Your task to perform on an android device: turn off smart reply in the gmail app Image 0: 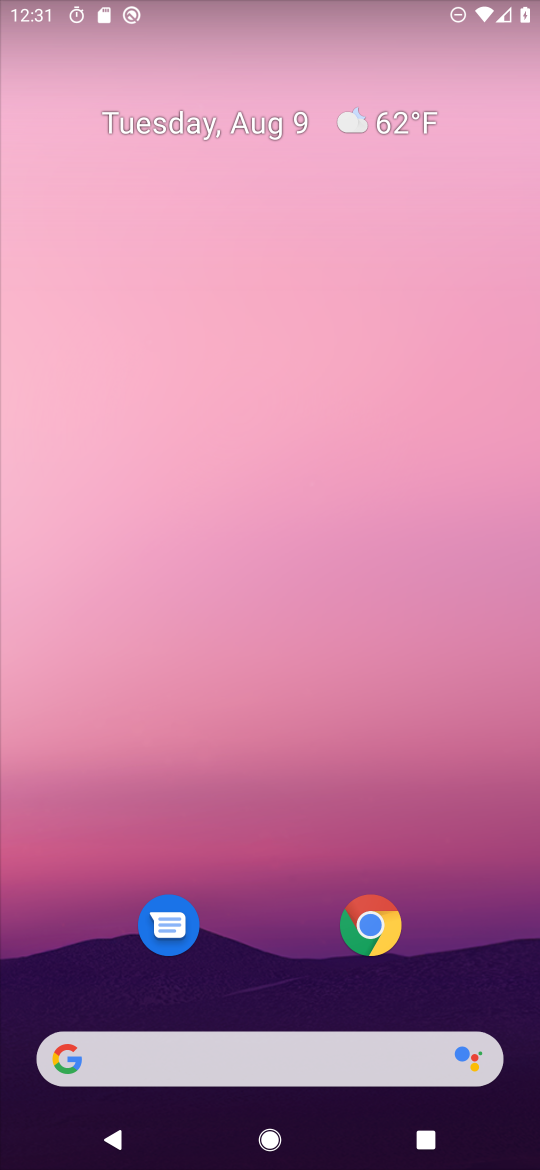
Step 0: drag from (237, 970) to (264, 287)
Your task to perform on an android device: turn off smart reply in the gmail app Image 1: 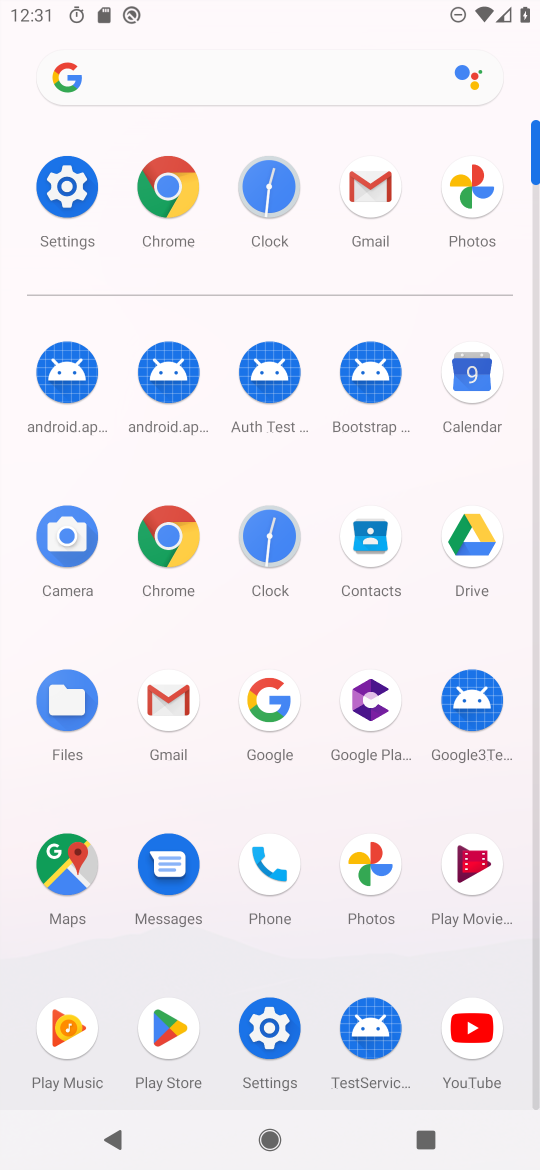
Step 1: click (169, 690)
Your task to perform on an android device: turn off smart reply in the gmail app Image 2: 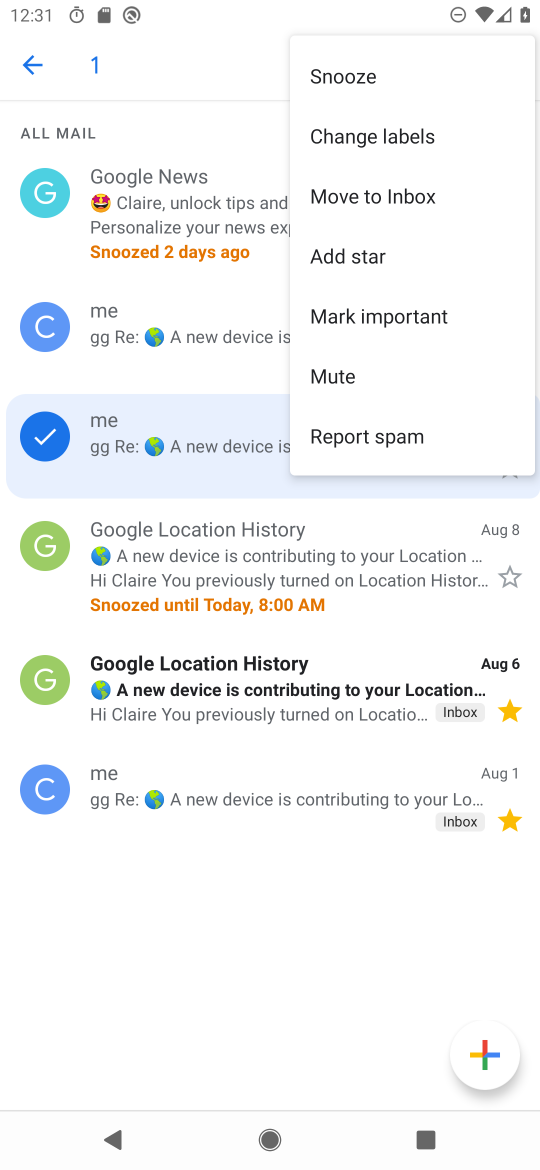
Step 2: click (193, 921)
Your task to perform on an android device: turn off smart reply in the gmail app Image 3: 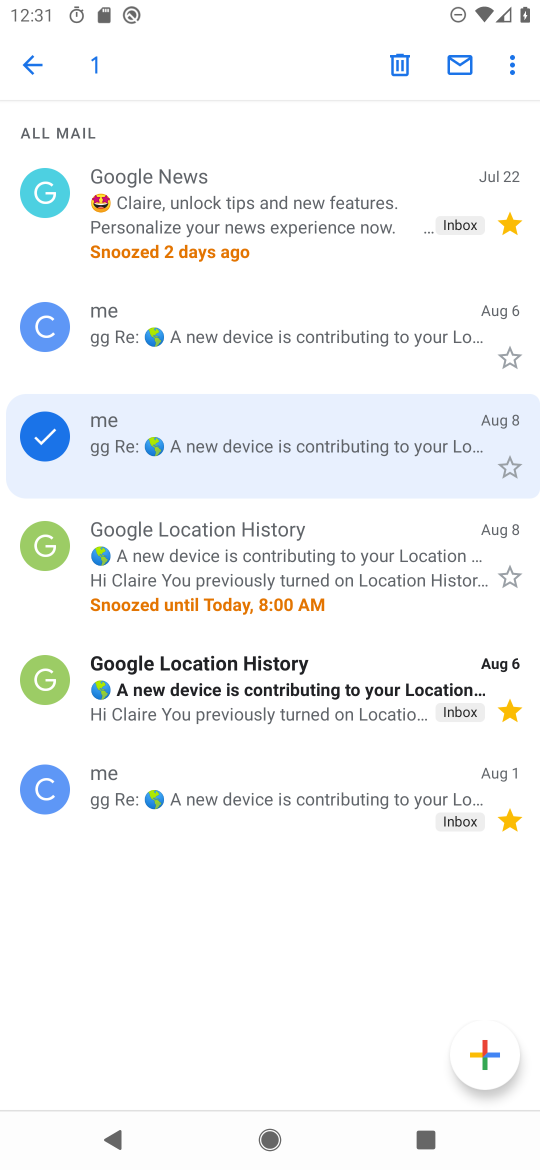
Step 3: click (26, 67)
Your task to perform on an android device: turn off smart reply in the gmail app Image 4: 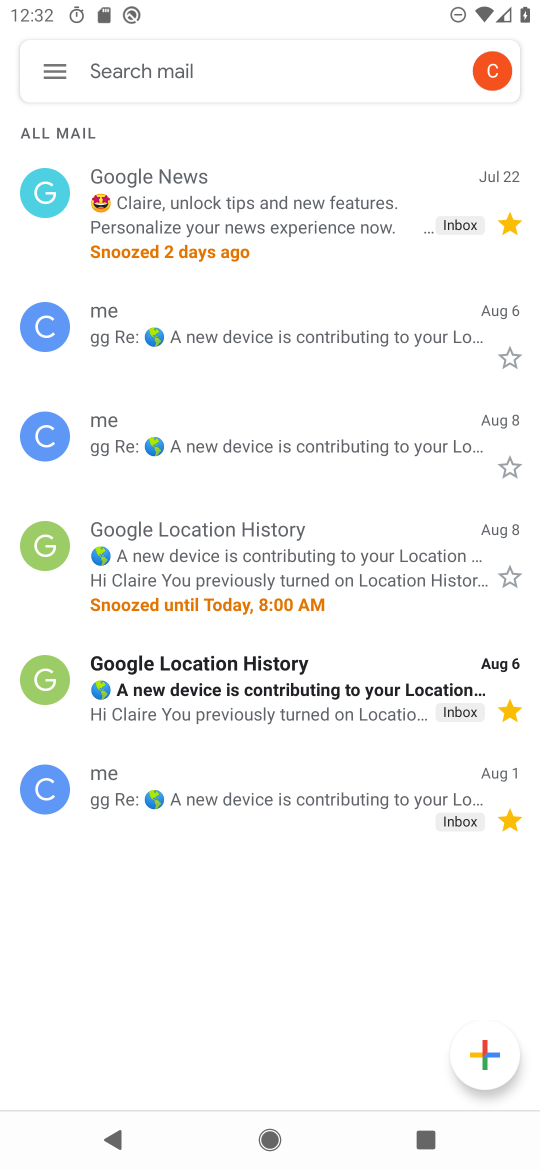
Step 4: click (49, 78)
Your task to perform on an android device: turn off smart reply in the gmail app Image 5: 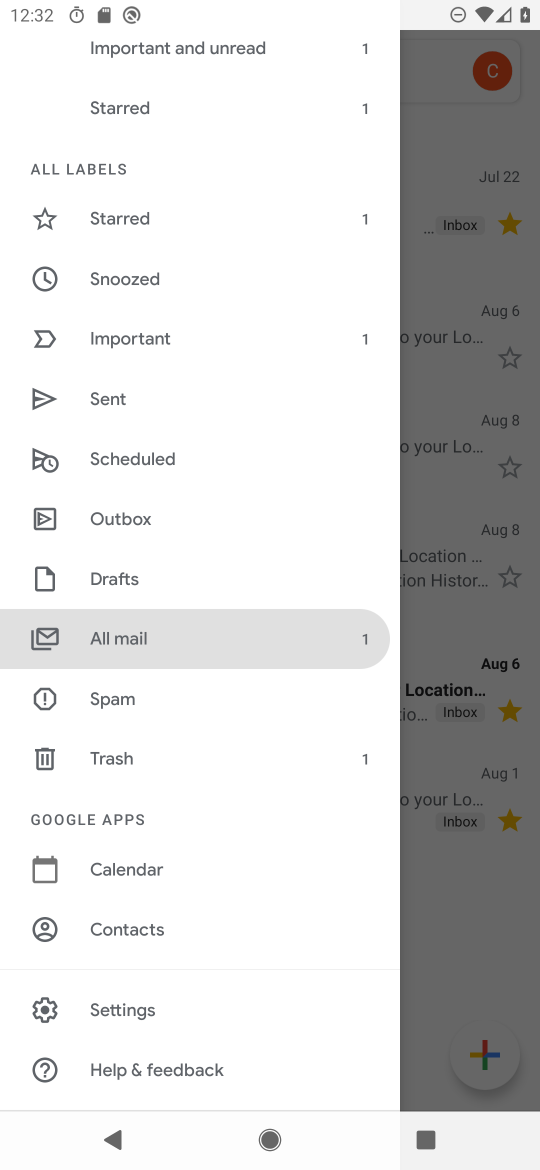
Step 5: click (140, 995)
Your task to perform on an android device: turn off smart reply in the gmail app Image 6: 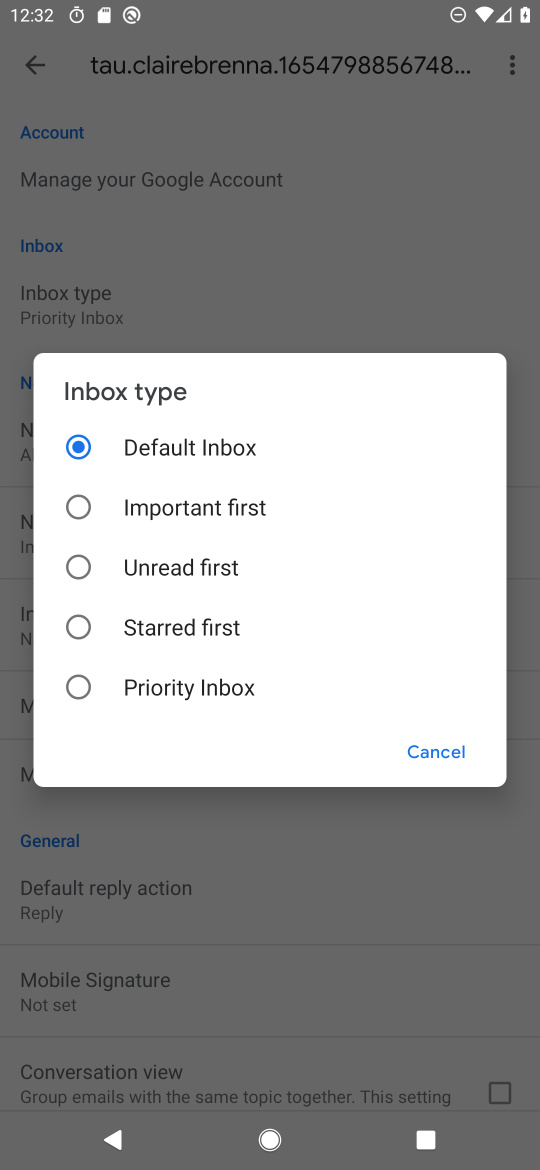
Step 6: click (416, 750)
Your task to perform on an android device: turn off smart reply in the gmail app Image 7: 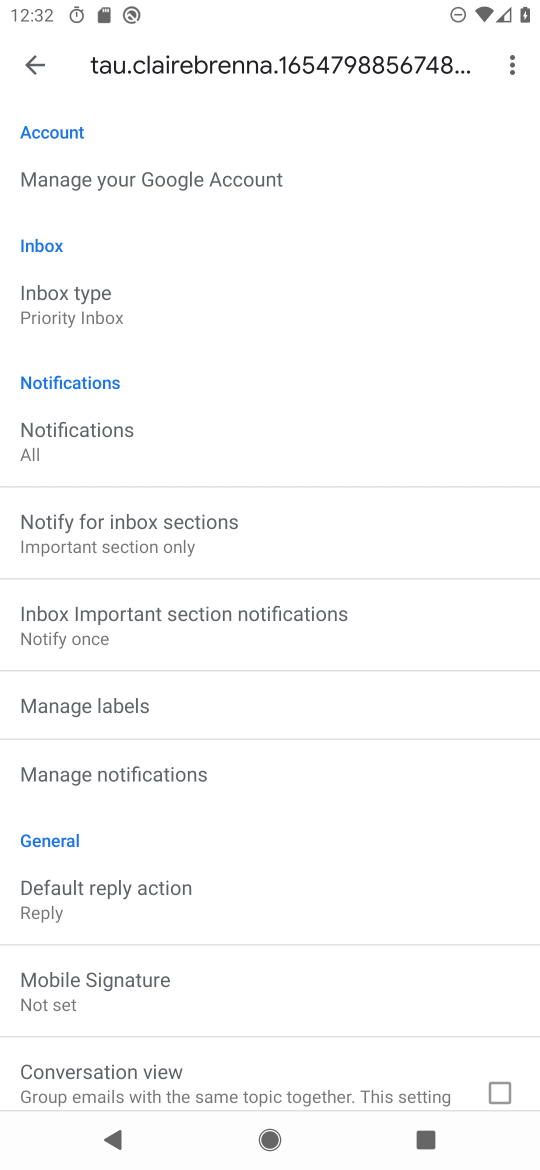
Step 7: drag from (303, 963) to (341, 454)
Your task to perform on an android device: turn off smart reply in the gmail app Image 8: 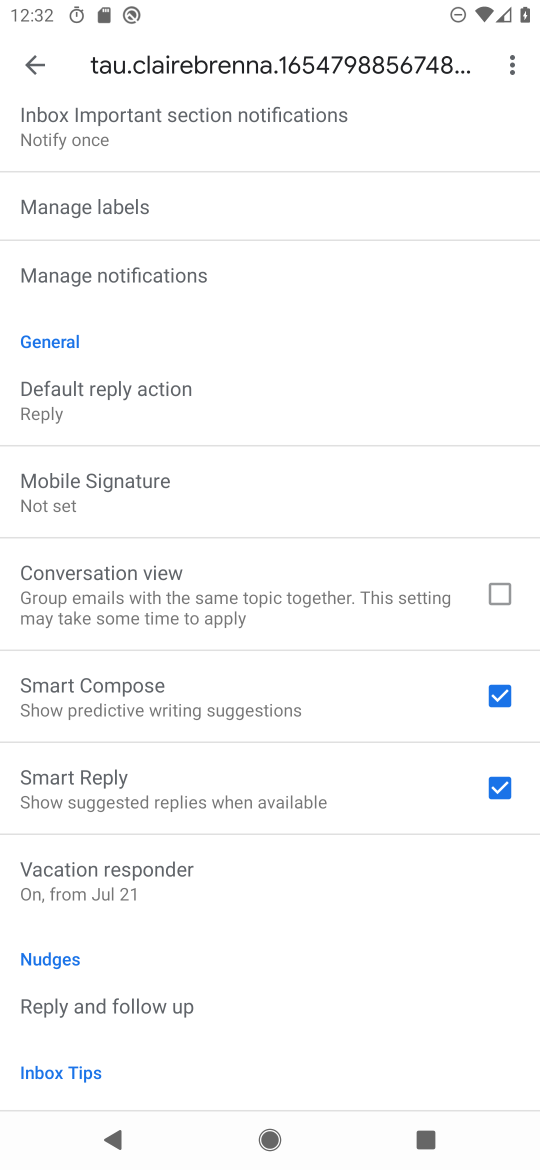
Step 8: click (498, 779)
Your task to perform on an android device: turn off smart reply in the gmail app Image 9: 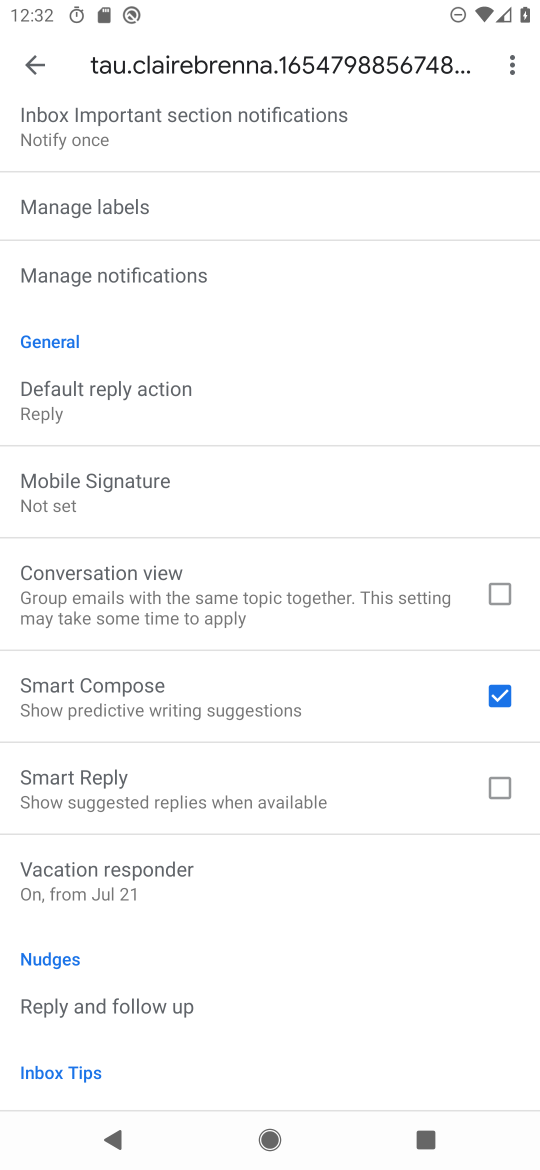
Step 9: task complete